Your task to perform on an android device: Find coffee shops on Maps Image 0: 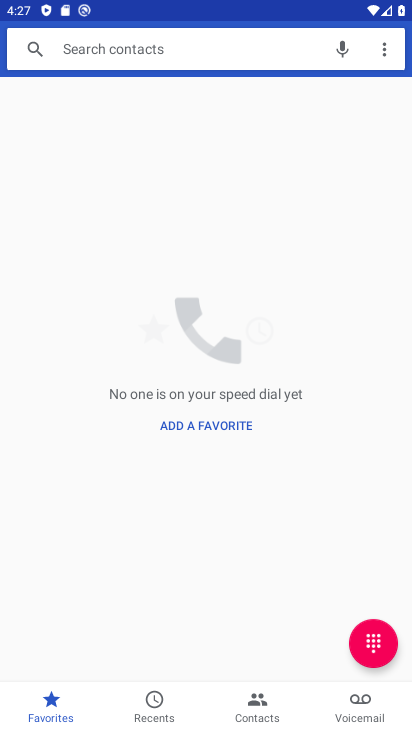
Step 0: press home button
Your task to perform on an android device: Find coffee shops on Maps Image 1: 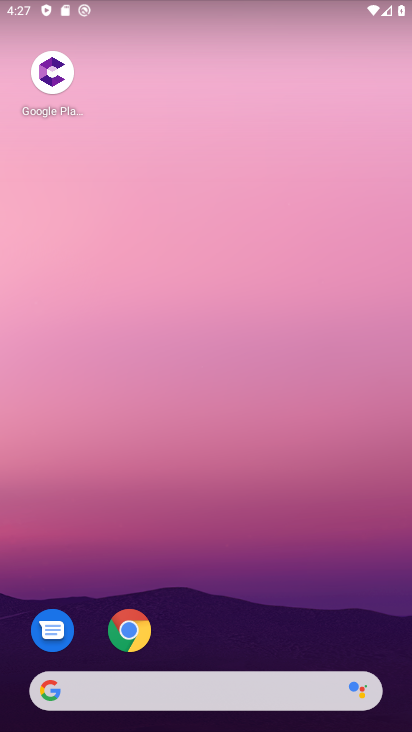
Step 1: drag from (209, 601) to (255, 99)
Your task to perform on an android device: Find coffee shops on Maps Image 2: 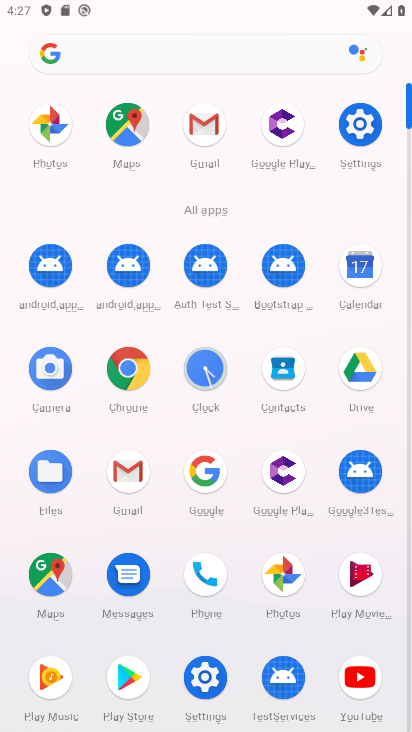
Step 2: click (125, 124)
Your task to perform on an android device: Find coffee shops on Maps Image 3: 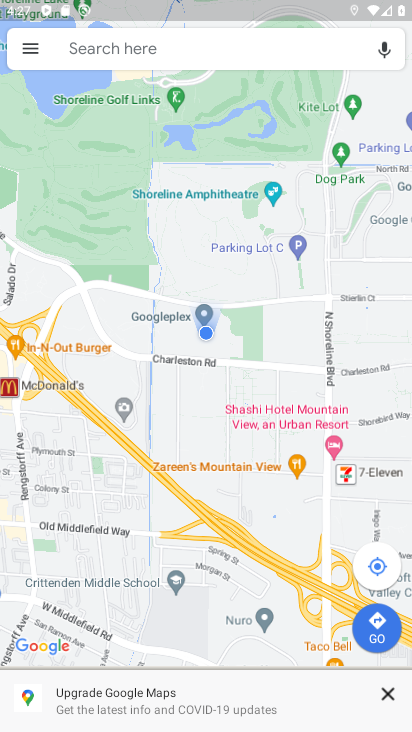
Step 3: click (174, 46)
Your task to perform on an android device: Find coffee shops on Maps Image 4: 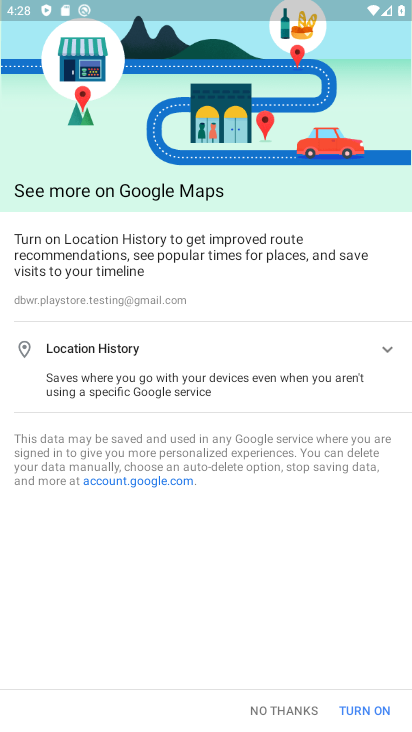
Step 4: click (299, 706)
Your task to perform on an android device: Find coffee shops on Maps Image 5: 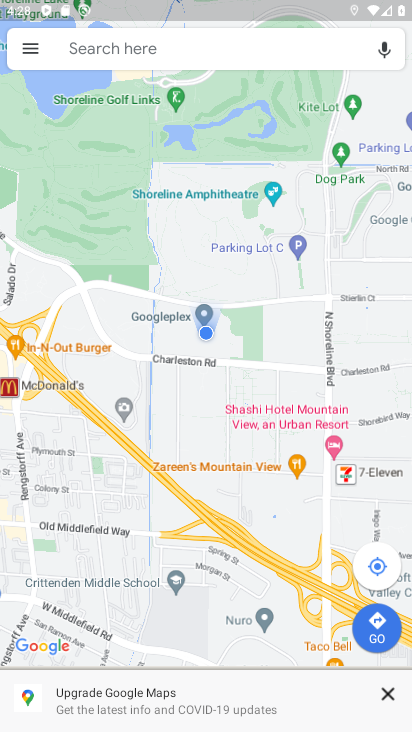
Step 5: click (125, 48)
Your task to perform on an android device: Find coffee shops on Maps Image 6: 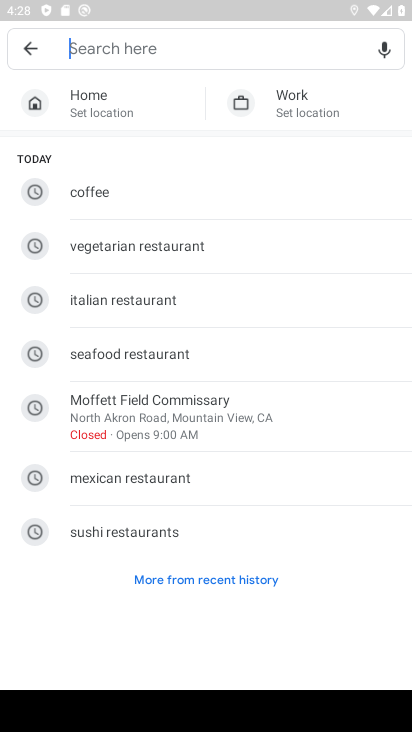
Step 6: type "coffee shops"
Your task to perform on an android device: Find coffee shops on Maps Image 7: 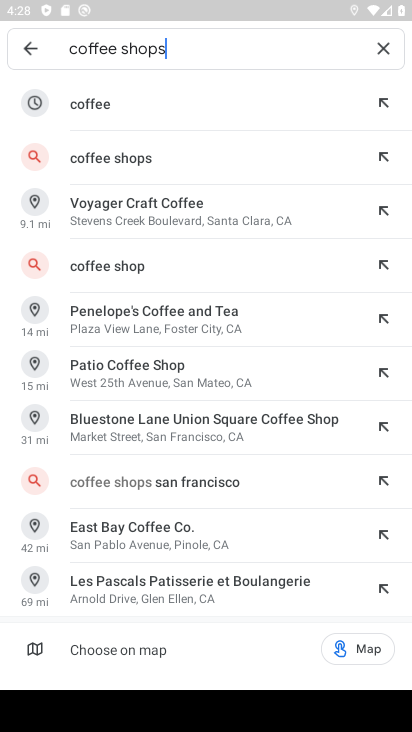
Step 7: click (123, 163)
Your task to perform on an android device: Find coffee shops on Maps Image 8: 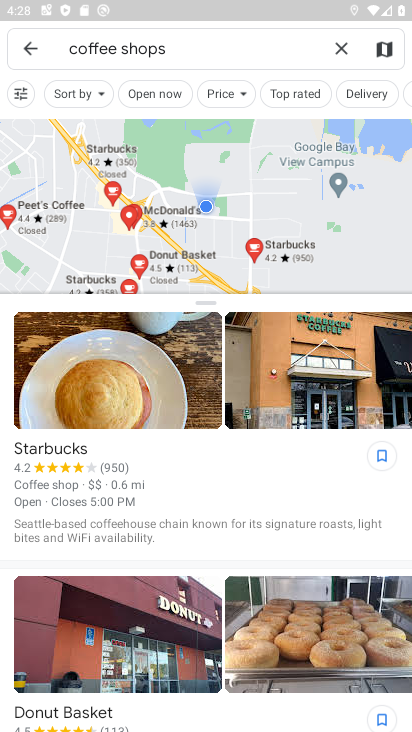
Step 8: task complete